Your task to perform on an android device: Turn on the flashlight Image 0: 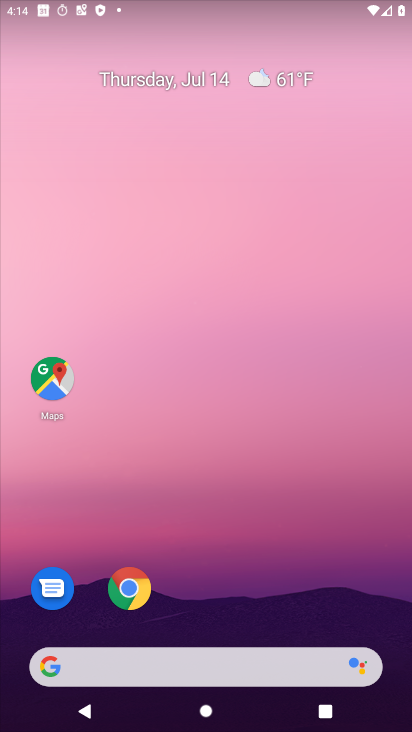
Step 0: drag from (185, 667) to (308, 18)
Your task to perform on an android device: Turn on the flashlight Image 1: 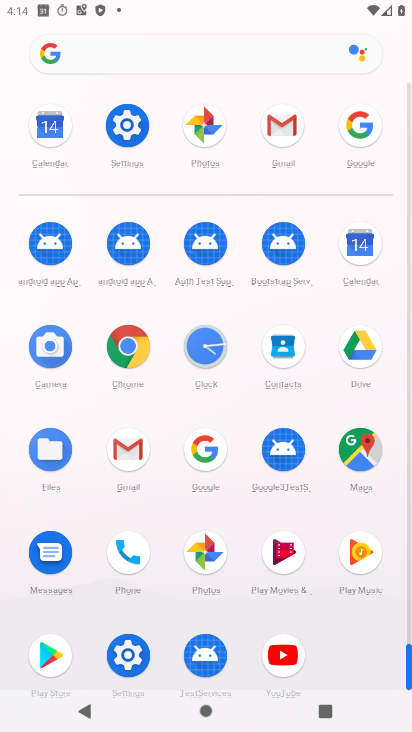
Step 1: click (129, 654)
Your task to perform on an android device: Turn on the flashlight Image 2: 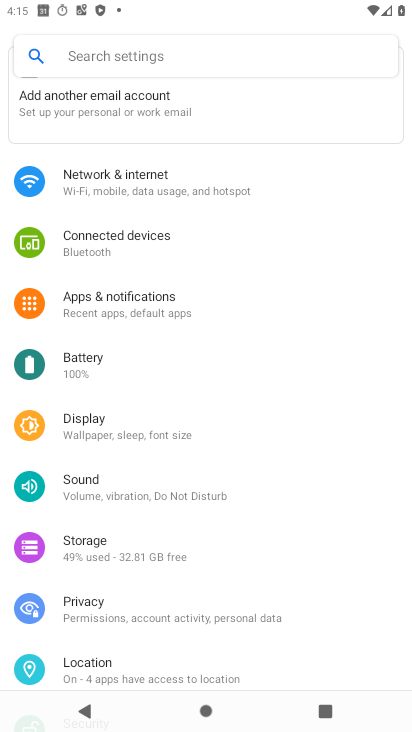
Step 2: click (138, 443)
Your task to perform on an android device: Turn on the flashlight Image 3: 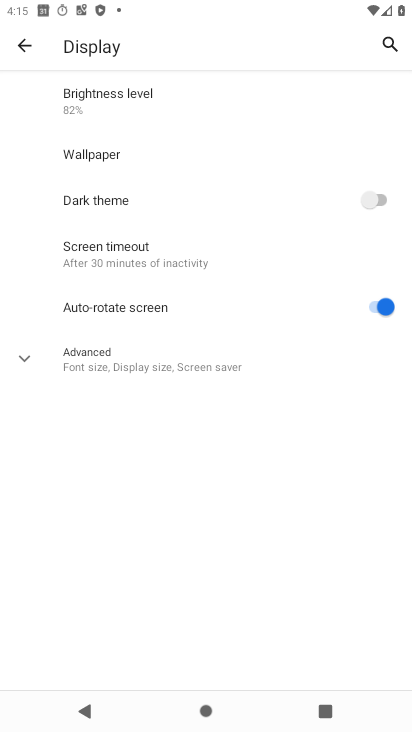
Step 3: press back button
Your task to perform on an android device: Turn on the flashlight Image 4: 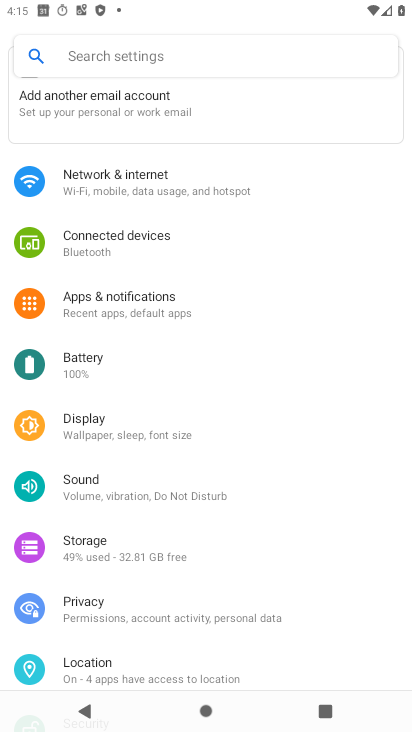
Step 4: click (81, 364)
Your task to perform on an android device: Turn on the flashlight Image 5: 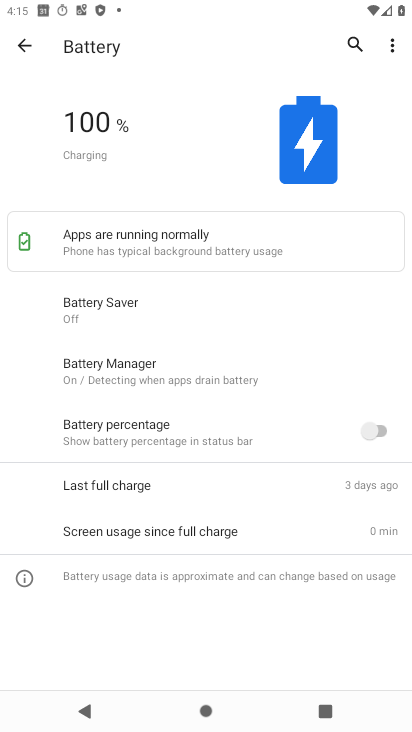
Step 5: task complete